Your task to perform on an android device: toggle notification dots Image 0: 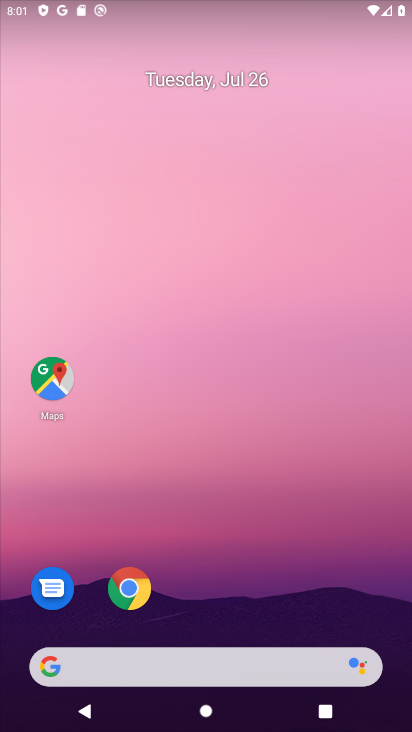
Step 0: press home button
Your task to perform on an android device: toggle notification dots Image 1: 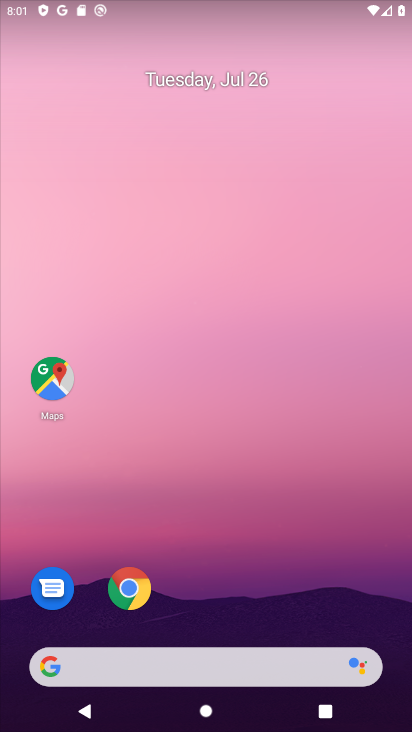
Step 1: drag from (233, 615) to (230, 108)
Your task to perform on an android device: toggle notification dots Image 2: 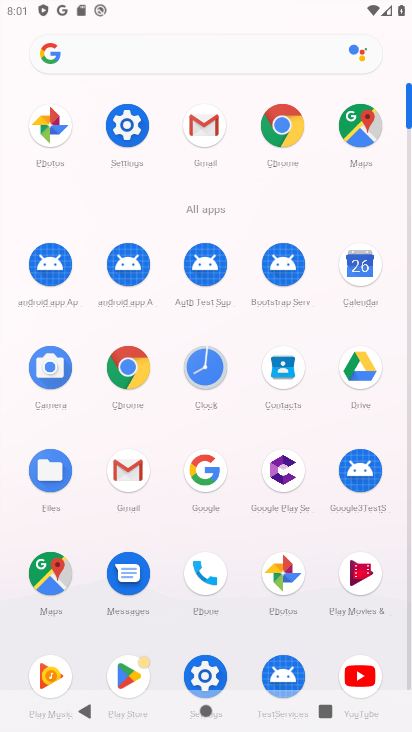
Step 2: click (134, 118)
Your task to perform on an android device: toggle notification dots Image 3: 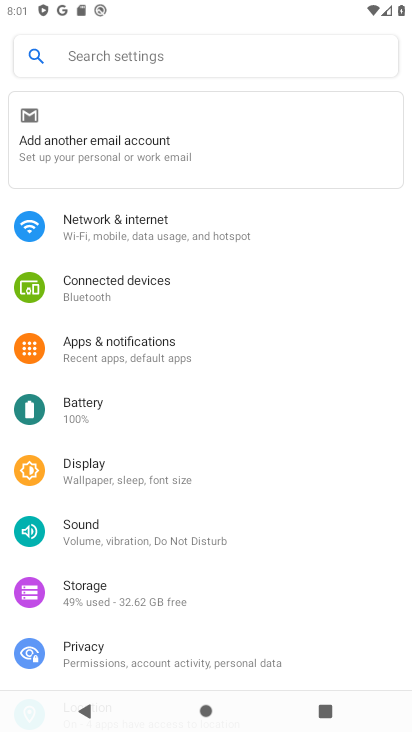
Step 3: click (115, 356)
Your task to perform on an android device: toggle notification dots Image 4: 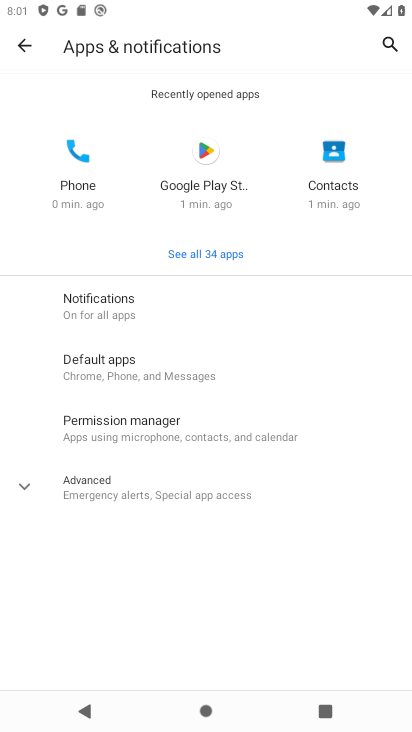
Step 4: click (118, 305)
Your task to perform on an android device: toggle notification dots Image 5: 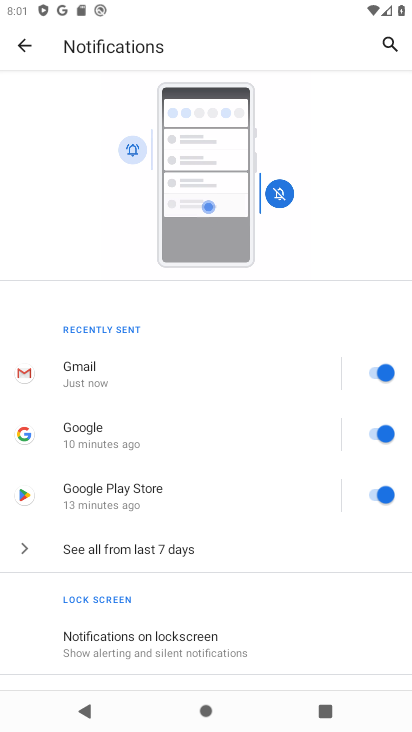
Step 5: drag from (232, 596) to (284, 234)
Your task to perform on an android device: toggle notification dots Image 6: 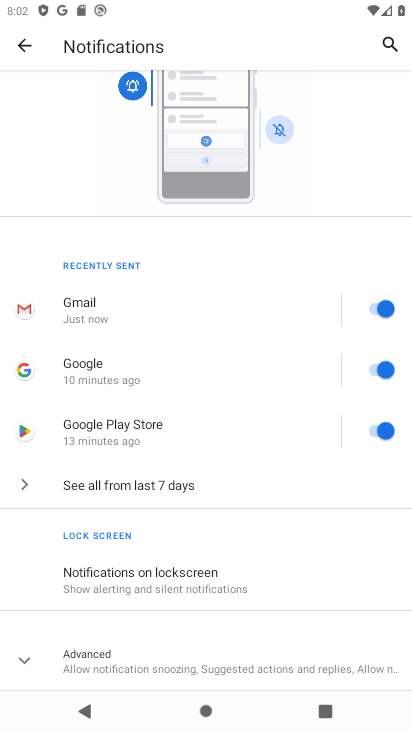
Step 6: click (7, 663)
Your task to perform on an android device: toggle notification dots Image 7: 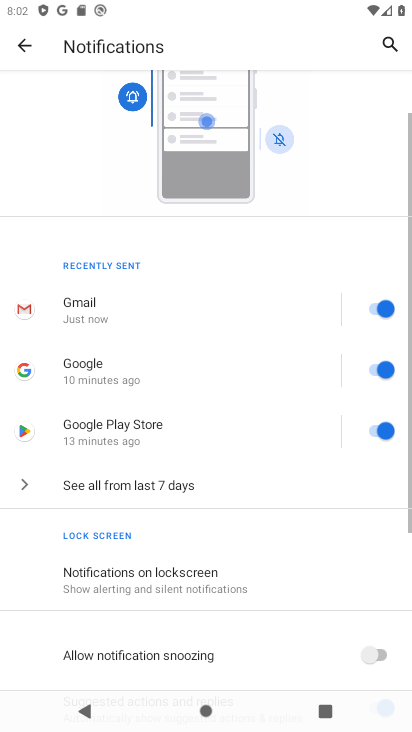
Step 7: drag from (332, 518) to (337, 157)
Your task to perform on an android device: toggle notification dots Image 8: 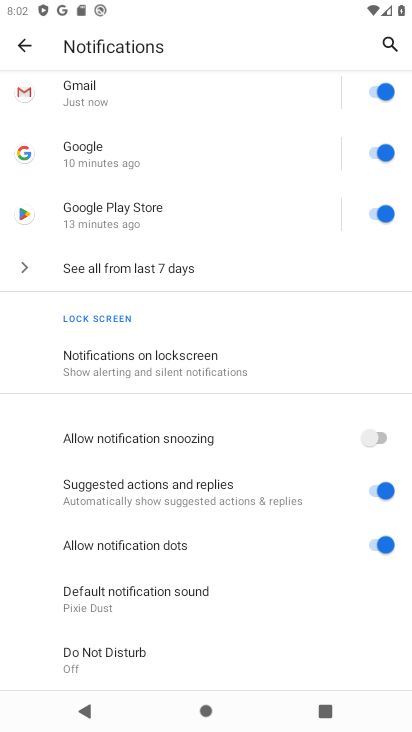
Step 8: click (385, 545)
Your task to perform on an android device: toggle notification dots Image 9: 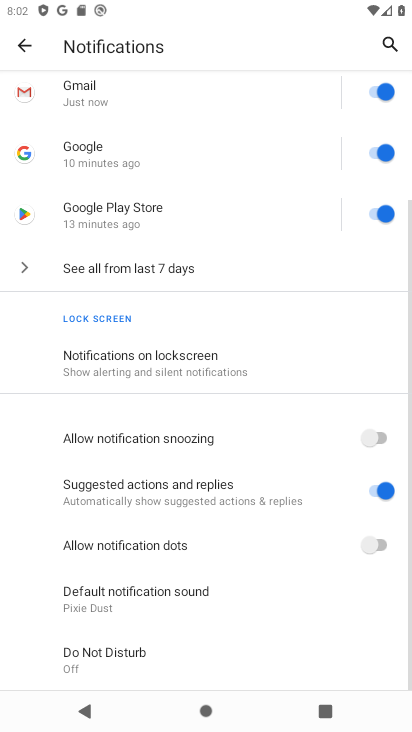
Step 9: task complete